Your task to perform on an android device: turn on the 12-hour format for clock Image 0: 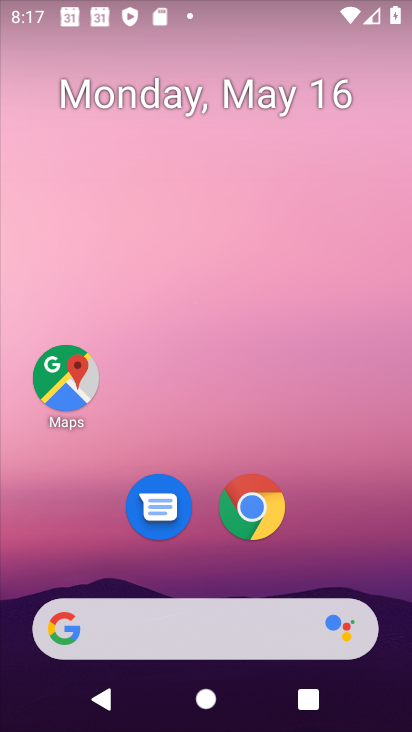
Step 0: drag from (318, 499) to (332, 141)
Your task to perform on an android device: turn on the 12-hour format for clock Image 1: 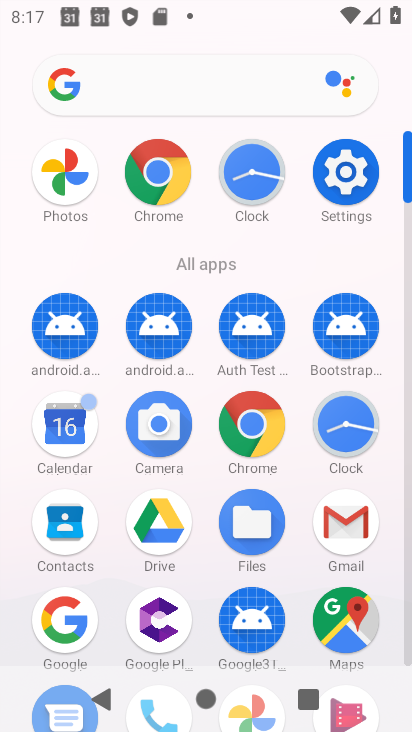
Step 1: click (357, 435)
Your task to perform on an android device: turn on the 12-hour format for clock Image 2: 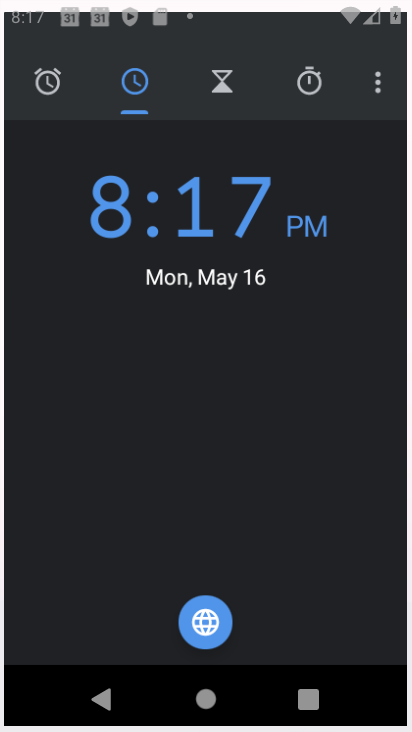
Step 2: click (357, 435)
Your task to perform on an android device: turn on the 12-hour format for clock Image 3: 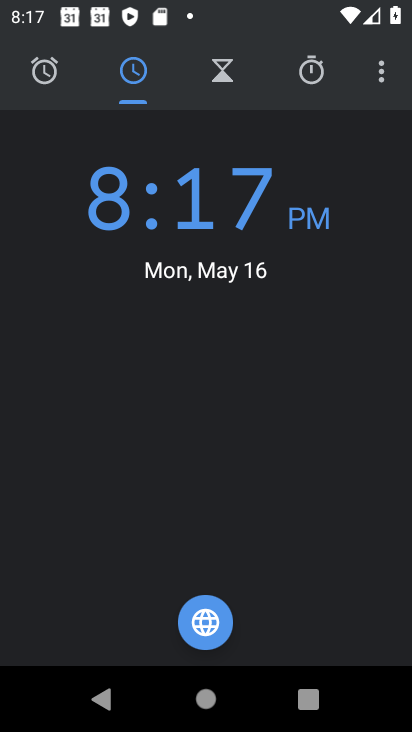
Step 3: click (378, 80)
Your task to perform on an android device: turn on the 12-hour format for clock Image 4: 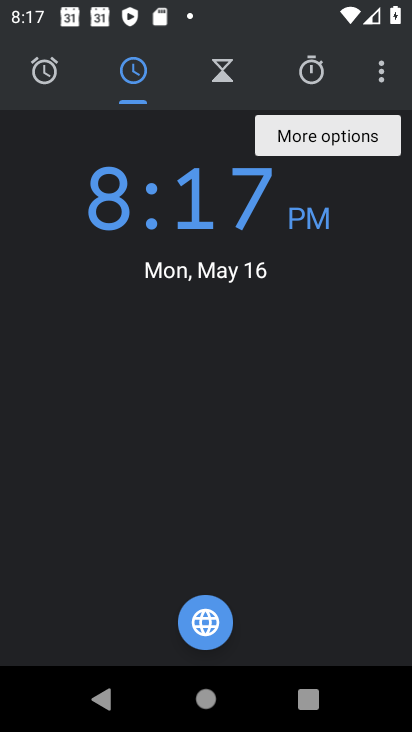
Step 4: click (378, 80)
Your task to perform on an android device: turn on the 12-hour format for clock Image 5: 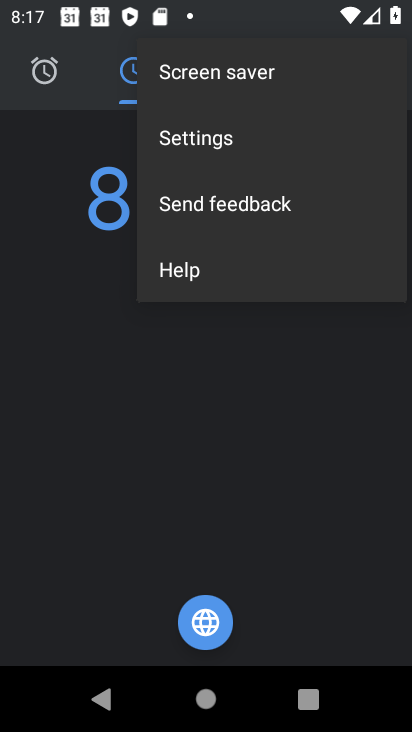
Step 5: click (206, 139)
Your task to perform on an android device: turn on the 12-hour format for clock Image 6: 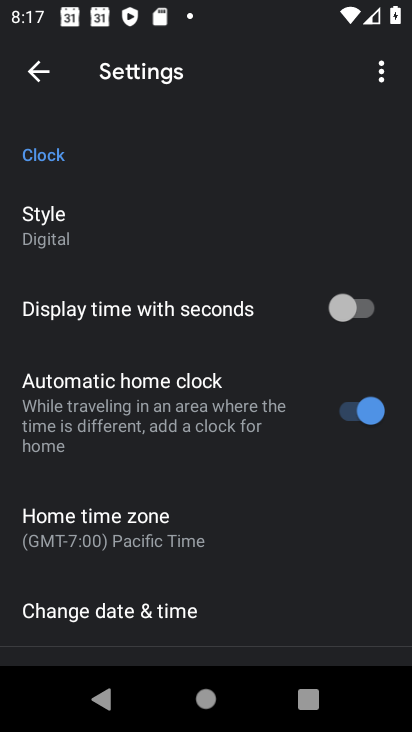
Step 6: click (128, 598)
Your task to perform on an android device: turn on the 12-hour format for clock Image 7: 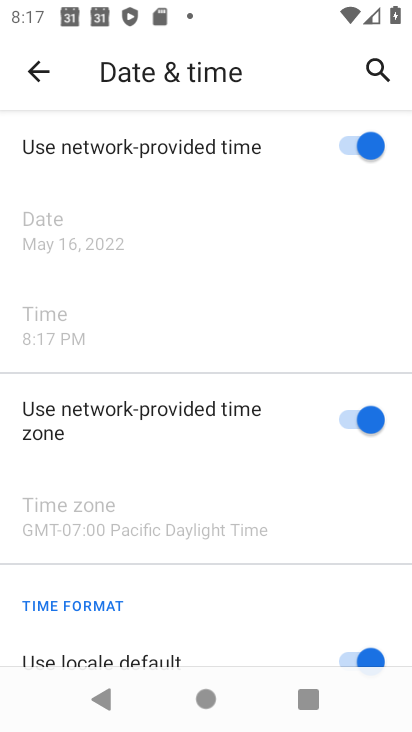
Step 7: task complete